Your task to perform on an android device: turn on priority inbox in the gmail app Image 0: 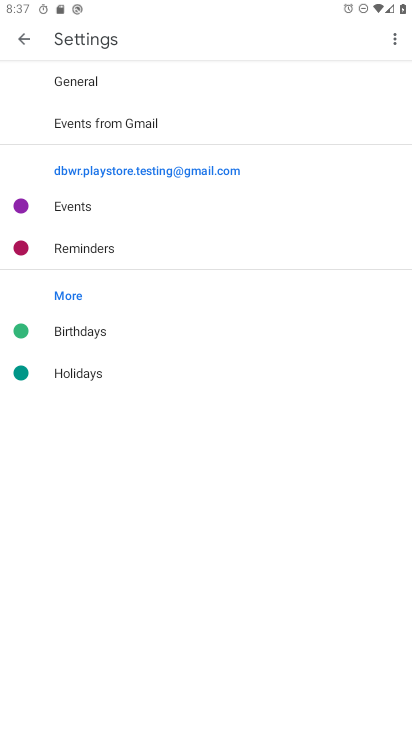
Step 0: press home button
Your task to perform on an android device: turn on priority inbox in the gmail app Image 1: 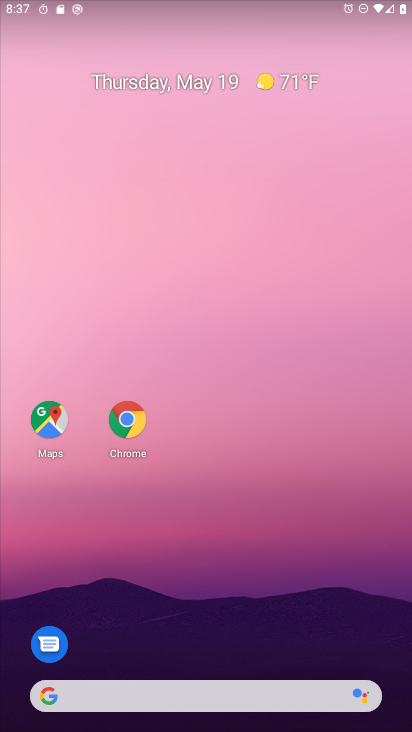
Step 1: drag from (161, 677) to (217, 192)
Your task to perform on an android device: turn on priority inbox in the gmail app Image 2: 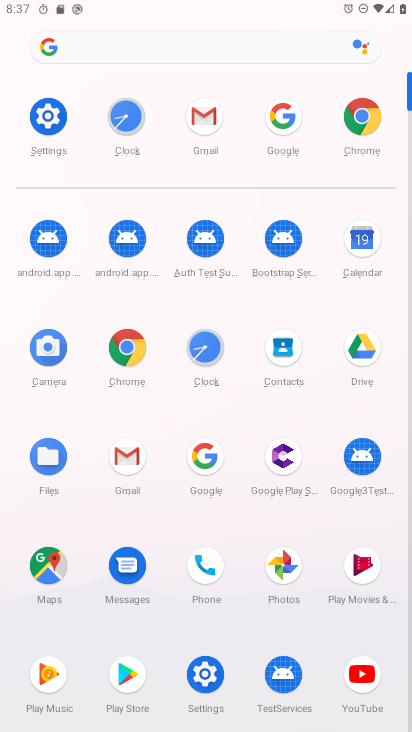
Step 2: click (131, 461)
Your task to perform on an android device: turn on priority inbox in the gmail app Image 3: 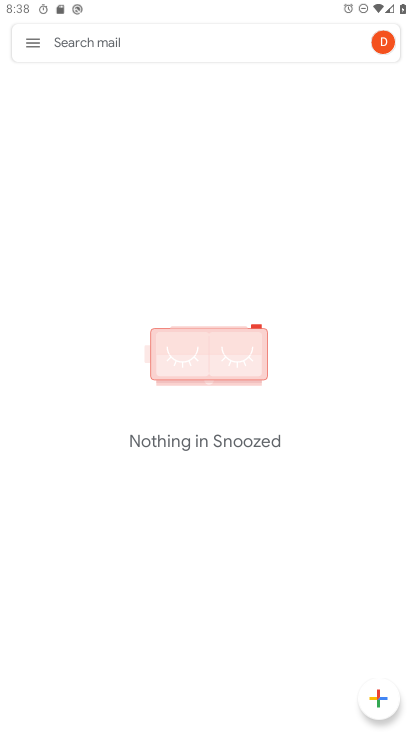
Step 3: click (27, 29)
Your task to perform on an android device: turn on priority inbox in the gmail app Image 4: 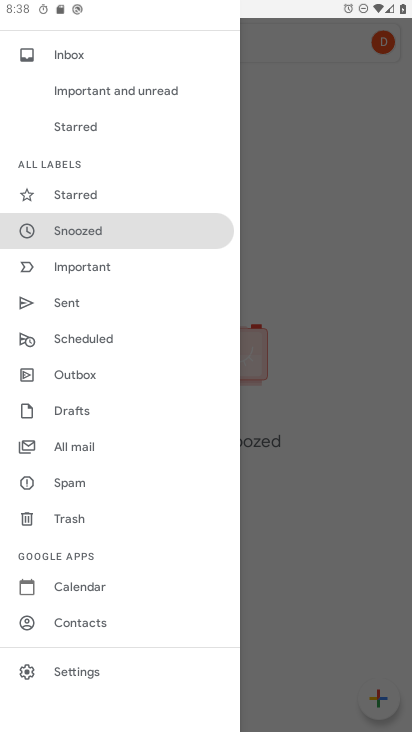
Step 4: click (80, 675)
Your task to perform on an android device: turn on priority inbox in the gmail app Image 5: 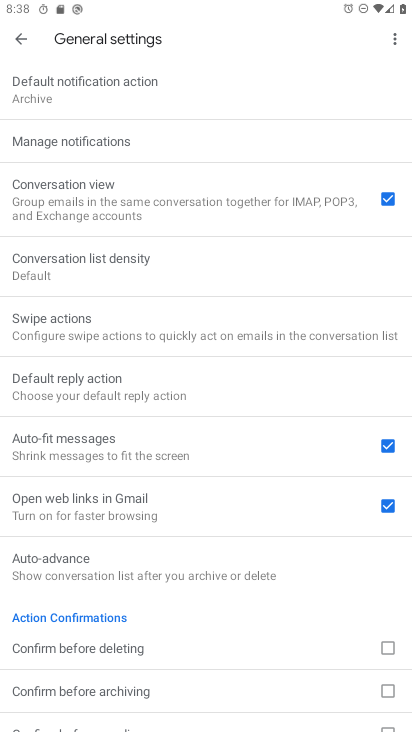
Step 5: click (22, 35)
Your task to perform on an android device: turn on priority inbox in the gmail app Image 6: 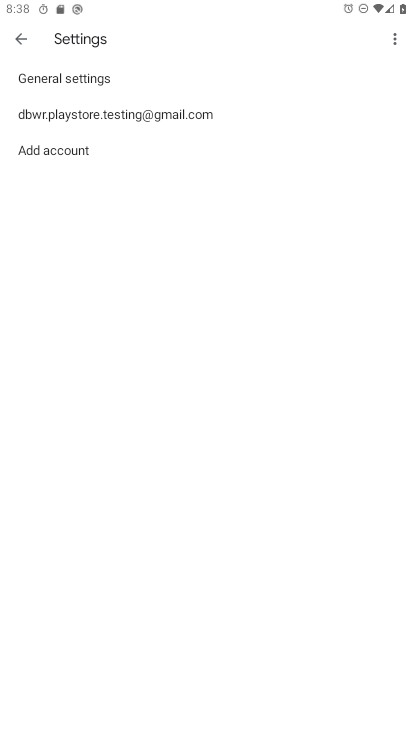
Step 6: click (72, 102)
Your task to perform on an android device: turn on priority inbox in the gmail app Image 7: 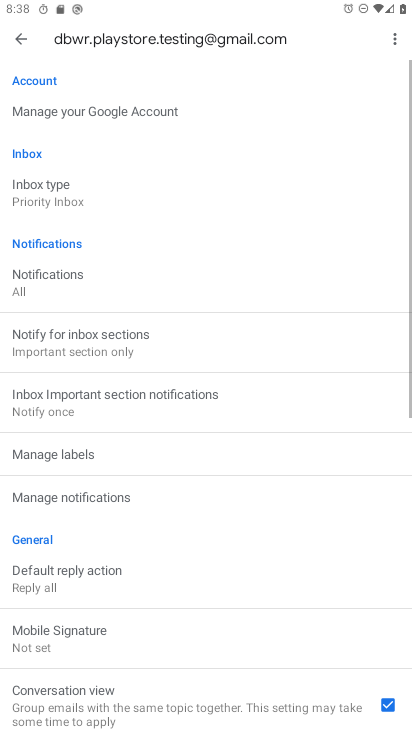
Step 7: click (62, 194)
Your task to perform on an android device: turn on priority inbox in the gmail app Image 8: 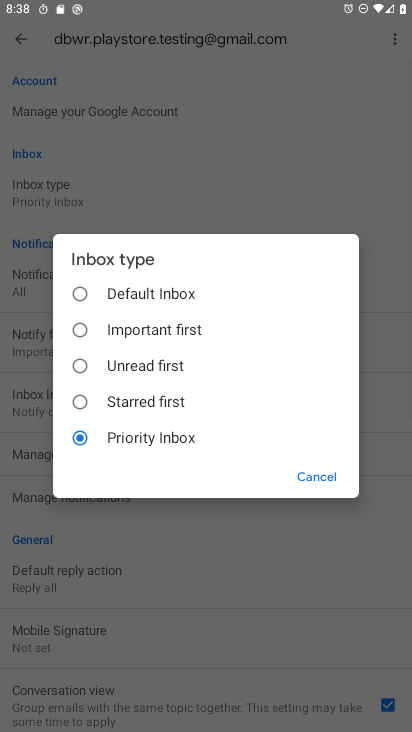
Step 8: click (322, 473)
Your task to perform on an android device: turn on priority inbox in the gmail app Image 9: 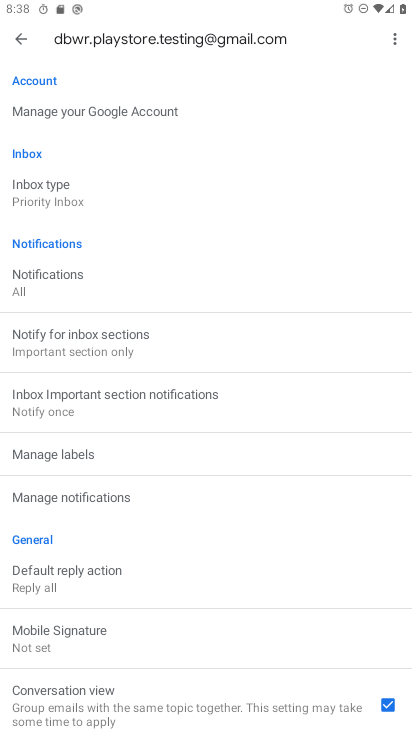
Step 9: task complete